Your task to perform on an android device: open app "Google Photos" Image 0: 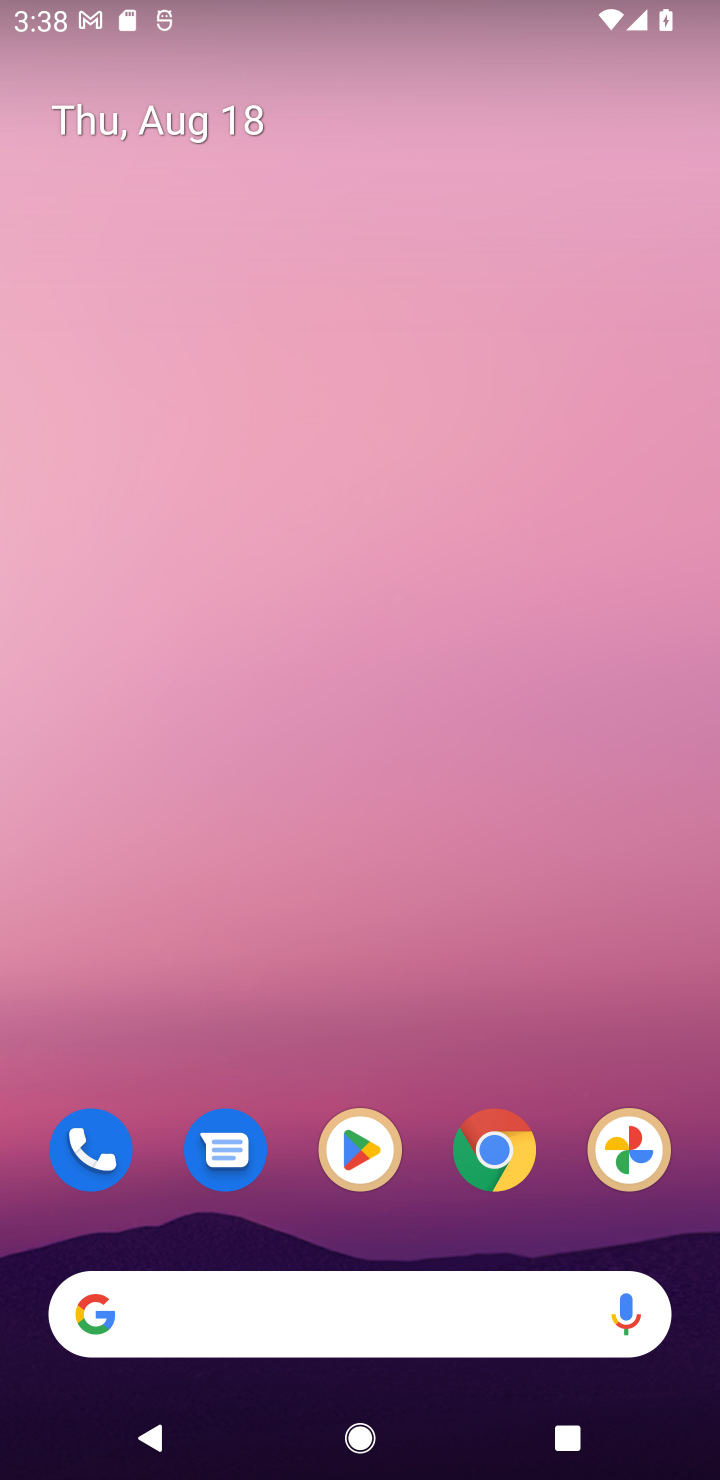
Step 0: click (635, 1152)
Your task to perform on an android device: open app "Google Photos" Image 1: 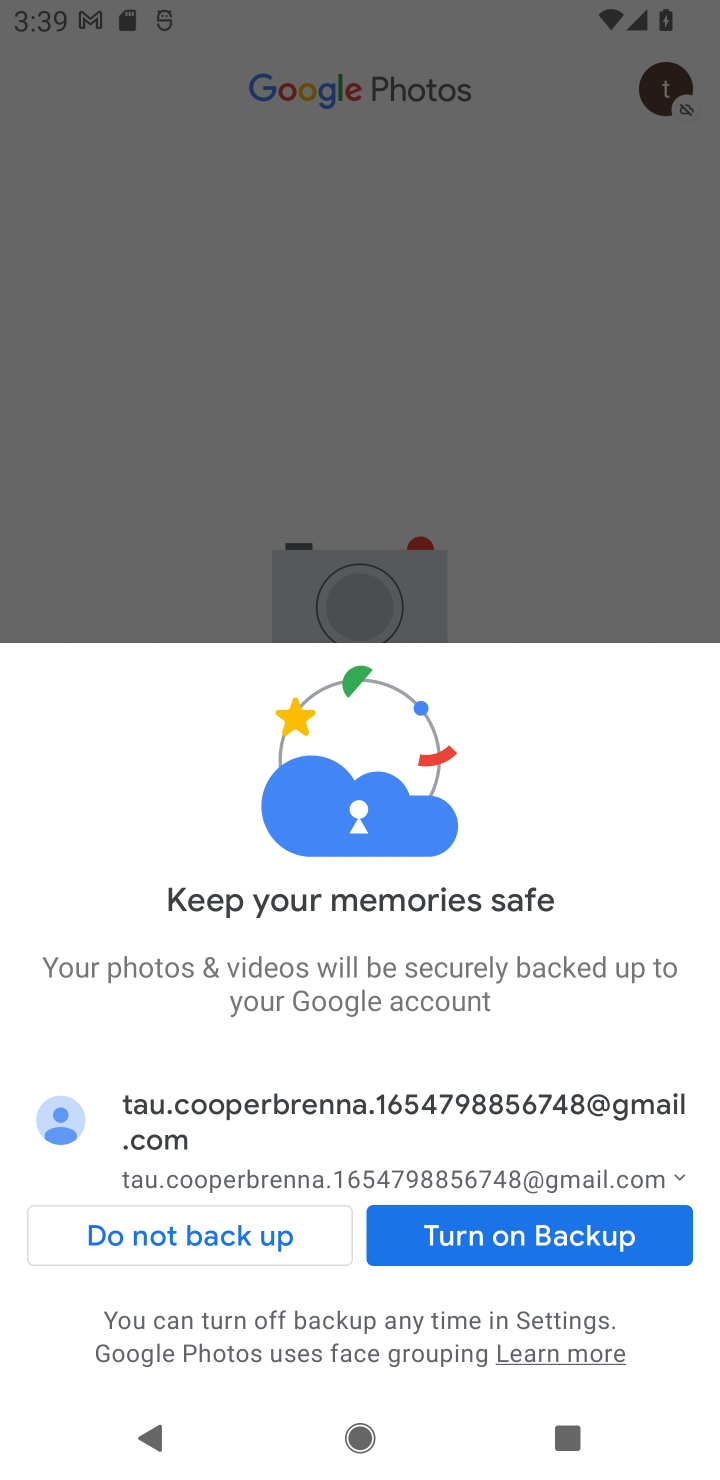
Step 1: click (491, 1234)
Your task to perform on an android device: open app "Google Photos" Image 2: 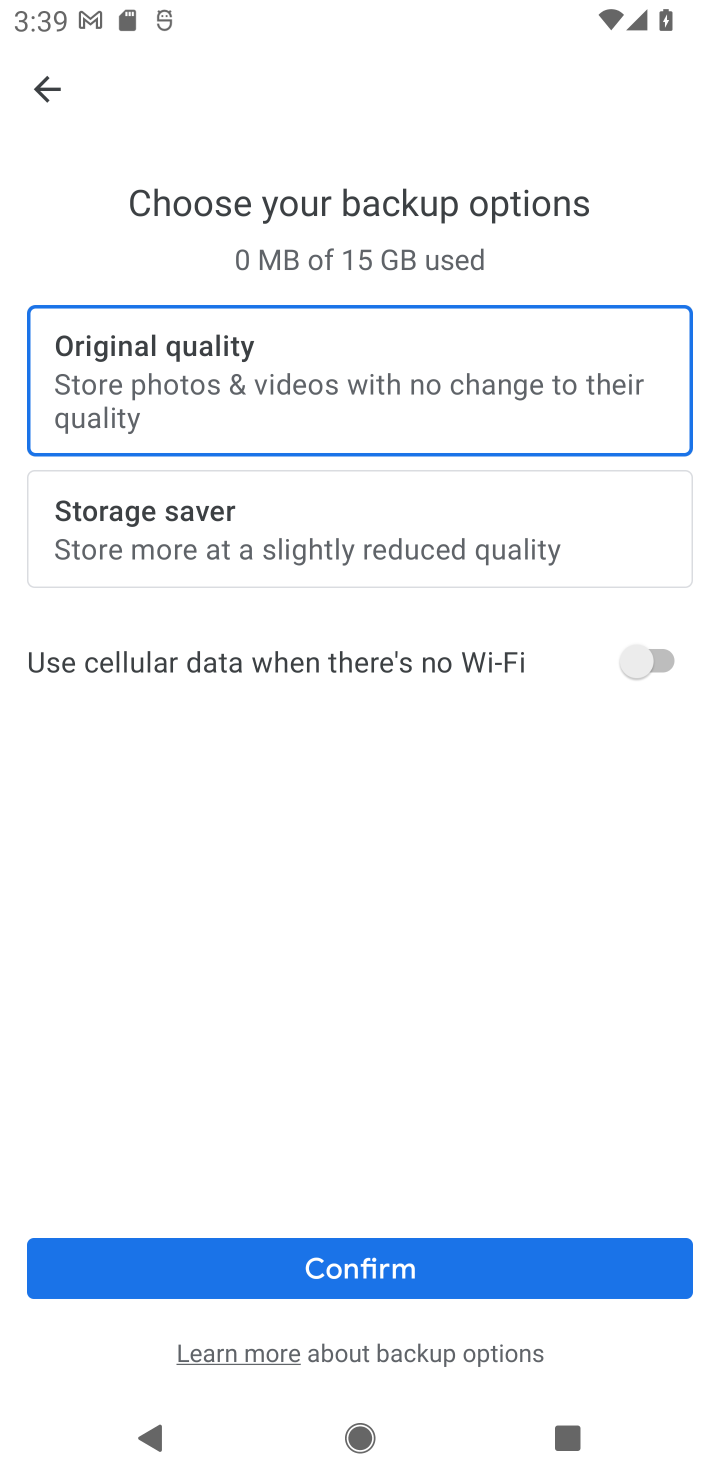
Step 2: click (377, 1270)
Your task to perform on an android device: open app "Google Photos" Image 3: 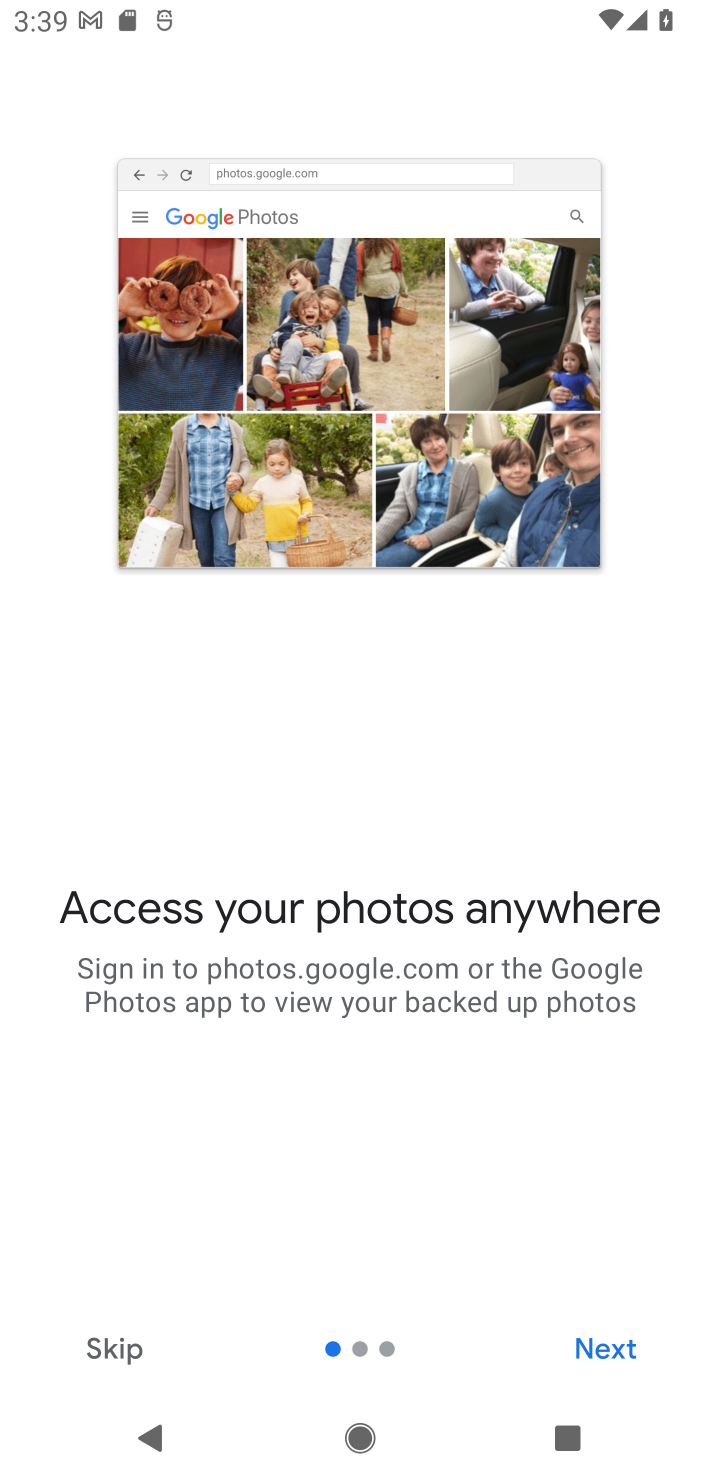
Step 3: task complete